Your task to perform on an android device: Go to network settings Image 0: 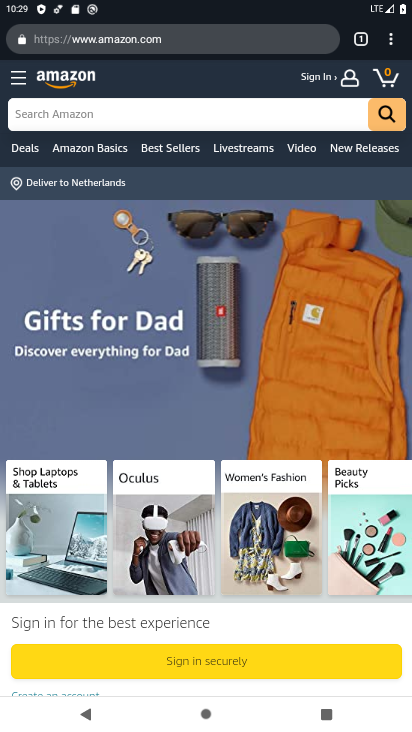
Step 0: press home button
Your task to perform on an android device: Go to network settings Image 1: 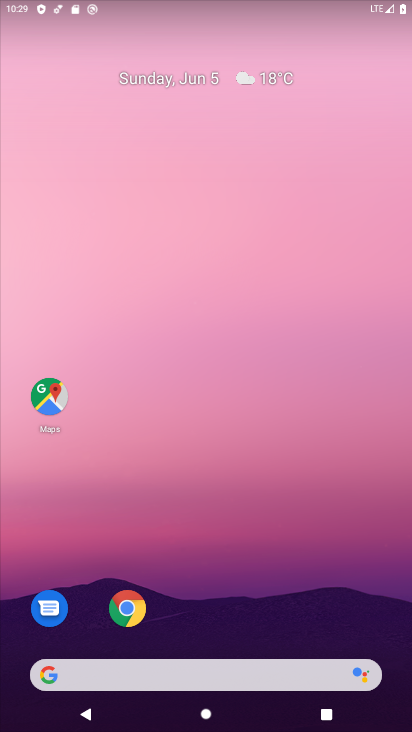
Step 1: drag from (228, 663) to (229, 326)
Your task to perform on an android device: Go to network settings Image 2: 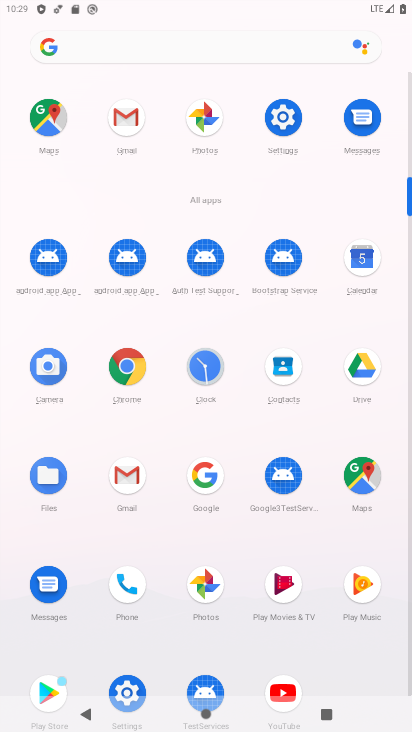
Step 2: click (131, 684)
Your task to perform on an android device: Go to network settings Image 3: 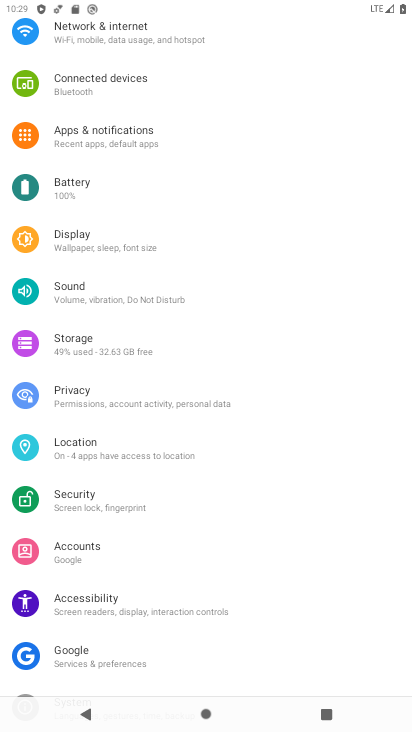
Step 3: click (77, 45)
Your task to perform on an android device: Go to network settings Image 4: 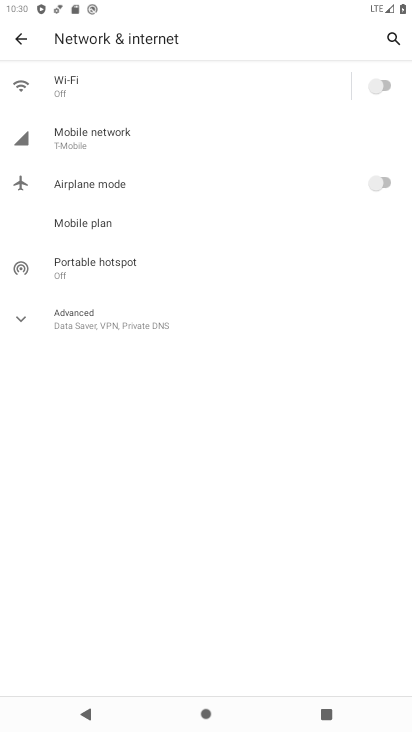
Step 4: task complete